Your task to perform on an android device: turn on the 24-hour format for clock Image 0: 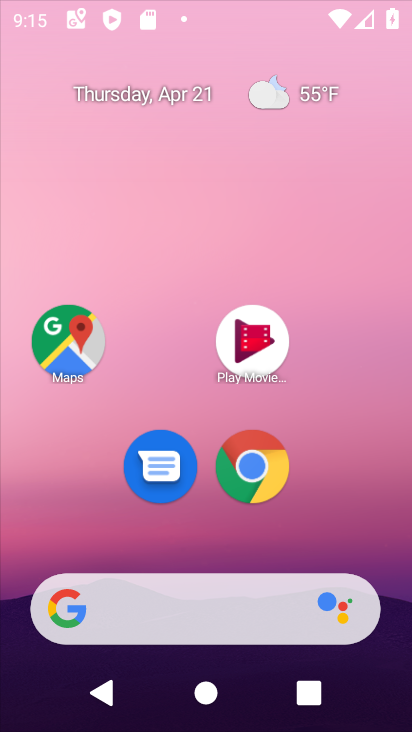
Step 0: click (77, 367)
Your task to perform on an android device: turn on the 24-hour format for clock Image 1: 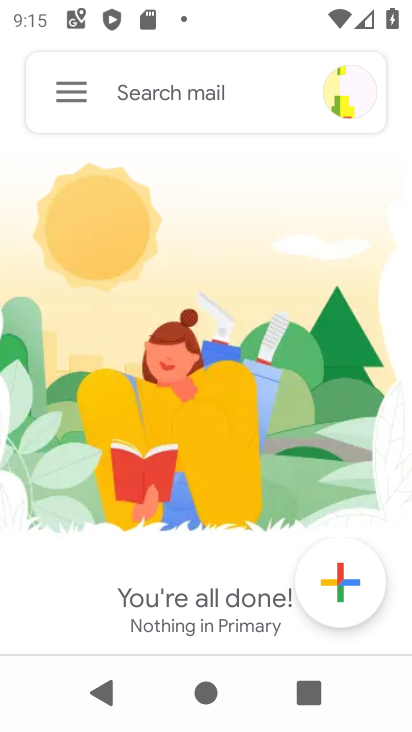
Step 1: press home button
Your task to perform on an android device: turn on the 24-hour format for clock Image 2: 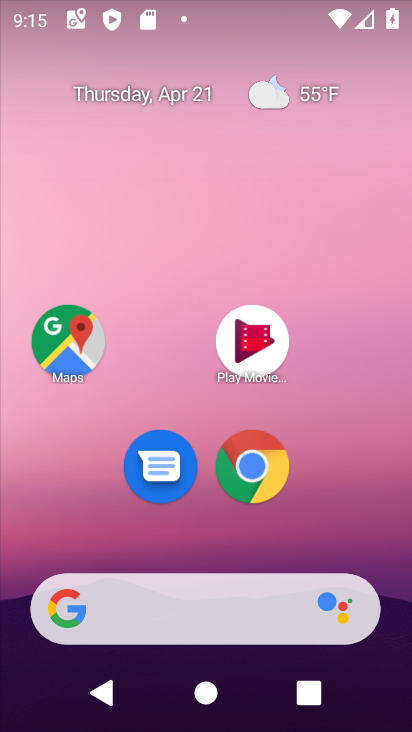
Step 2: drag from (345, 498) to (359, 144)
Your task to perform on an android device: turn on the 24-hour format for clock Image 3: 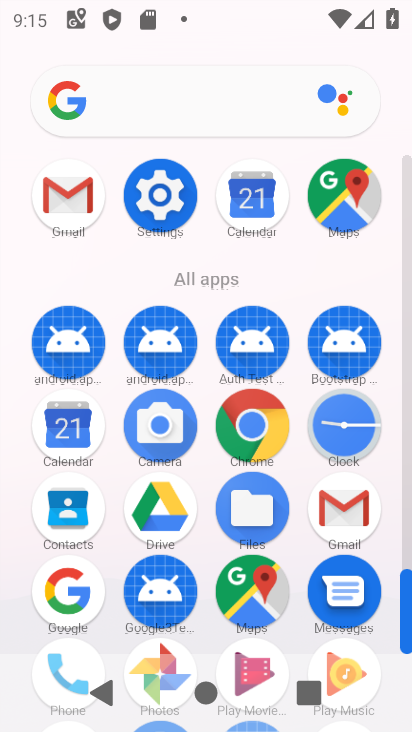
Step 3: click (348, 442)
Your task to perform on an android device: turn on the 24-hour format for clock Image 4: 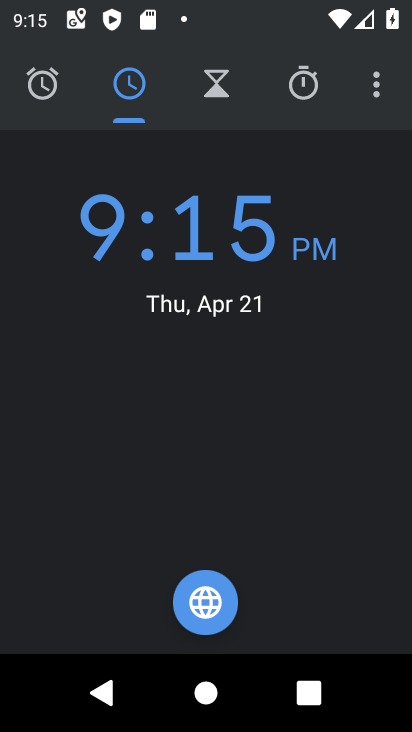
Step 4: click (377, 87)
Your task to perform on an android device: turn on the 24-hour format for clock Image 5: 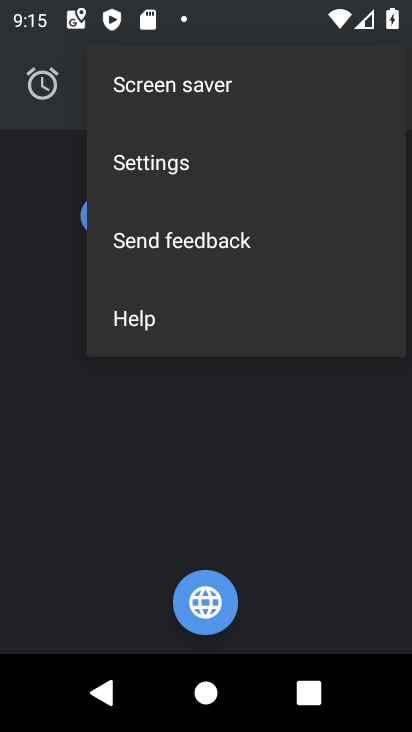
Step 5: click (177, 166)
Your task to perform on an android device: turn on the 24-hour format for clock Image 6: 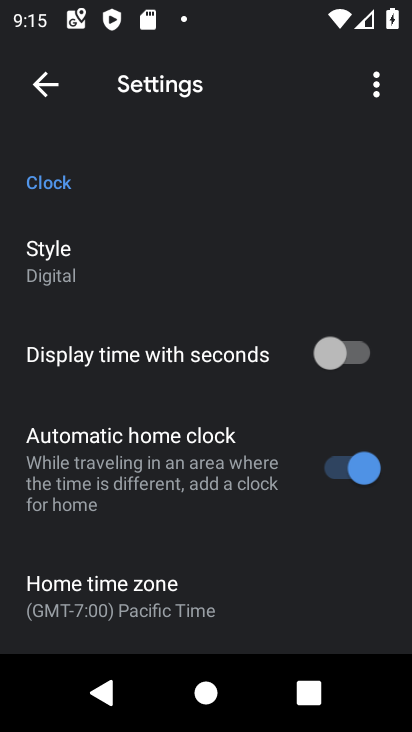
Step 6: drag from (175, 541) to (218, 177)
Your task to perform on an android device: turn on the 24-hour format for clock Image 7: 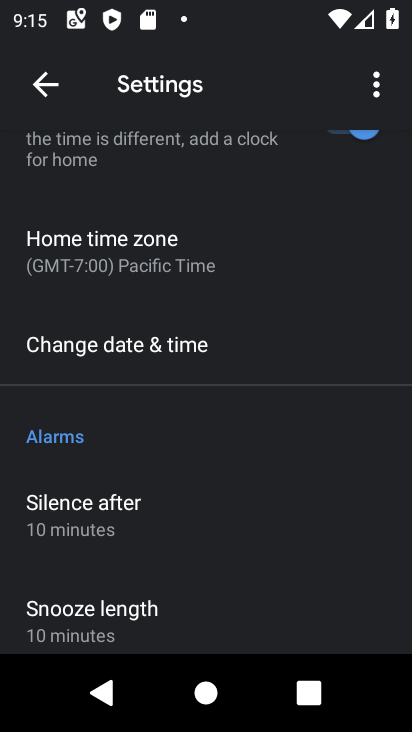
Step 7: click (174, 350)
Your task to perform on an android device: turn on the 24-hour format for clock Image 8: 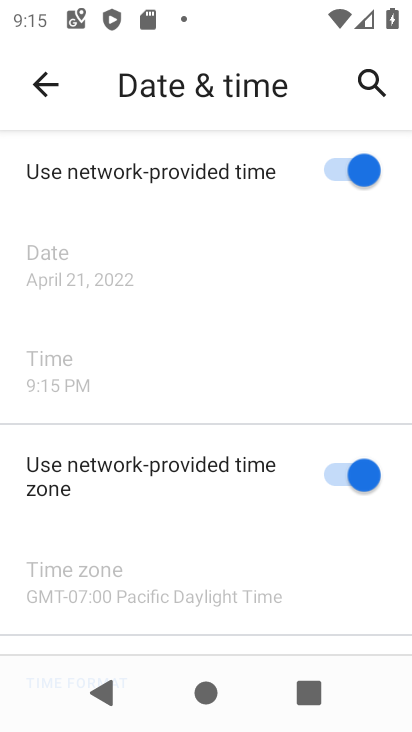
Step 8: drag from (208, 541) to (213, 207)
Your task to perform on an android device: turn on the 24-hour format for clock Image 9: 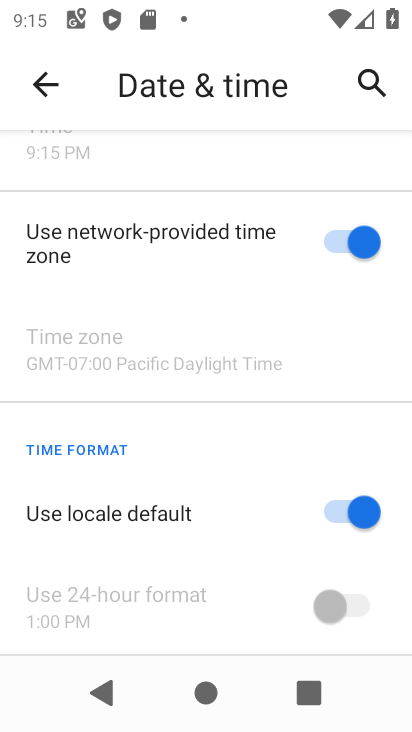
Step 9: drag from (216, 592) to (229, 246)
Your task to perform on an android device: turn on the 24-hour format for clock Image 10: 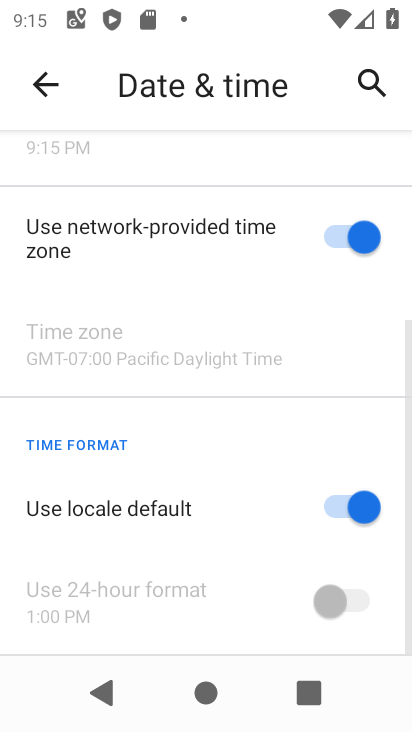
Step 10: click (333, 598)
Your task to perform on an android device: turn on the 24-hour format for clock Image 11: 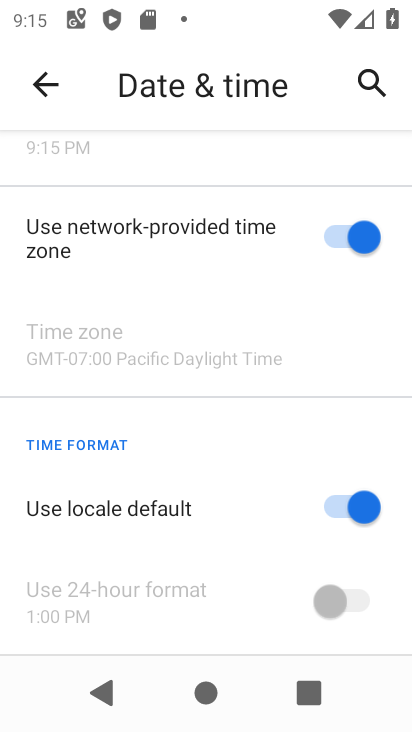
Step 11: click (360, 506)
Your task to perform on an android device: turn on the 24-hour format for clock Image 12: 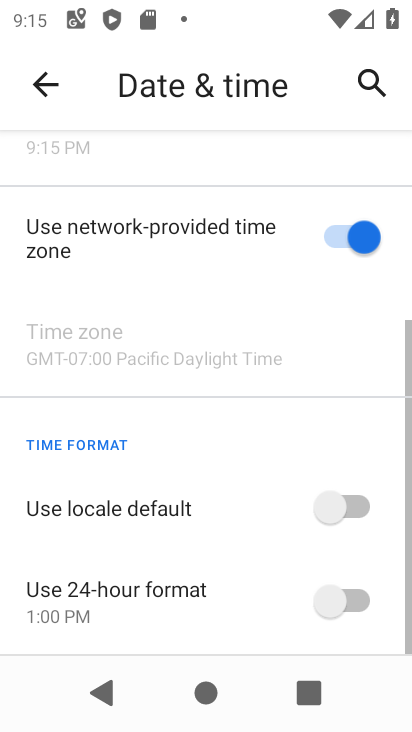
Step 12: click (342, 605)
Your task to perform on an android device: turn on the 24-hour format for clock Image 13: 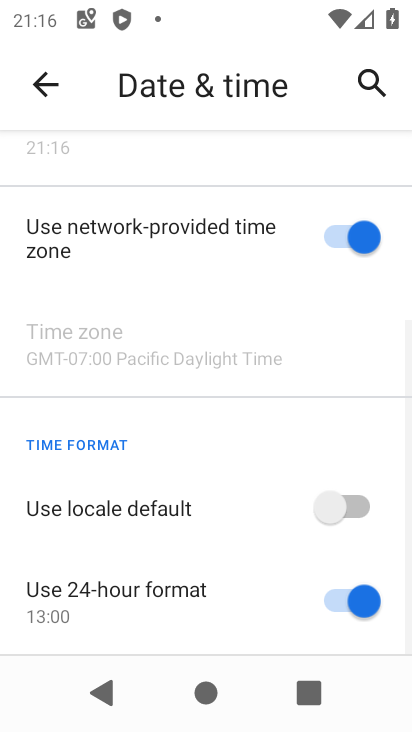
Step 13: task complete